Your task to perform on an android device: Open Google Maps Image 0: 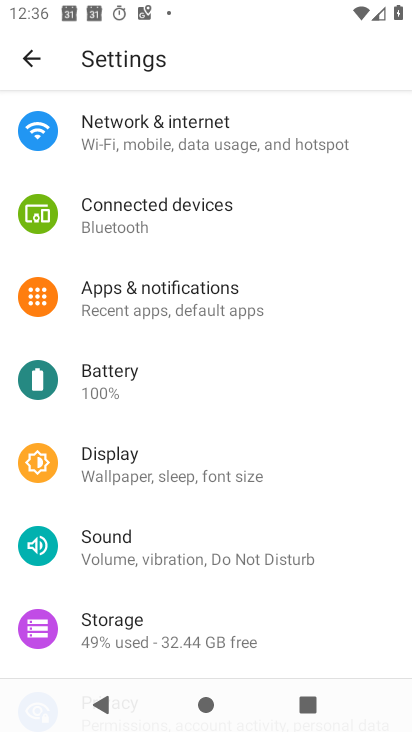
Step 0: press home button
Your task to perform on an android device: Open Google Maps Image 1: 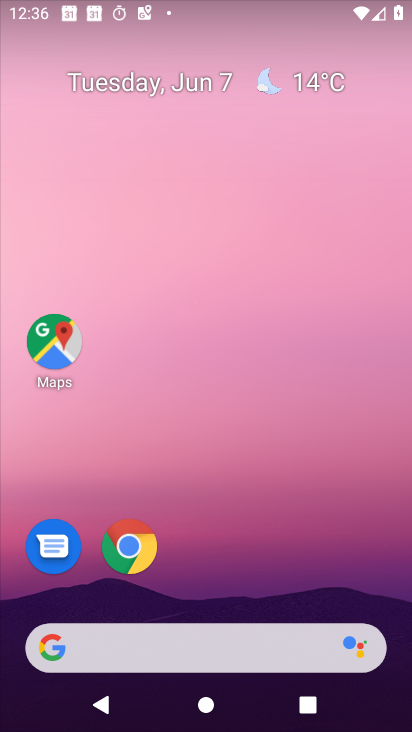
Step 1: click (51, 333)
Your task to perform on an android device: Open Google Maps Image 2: 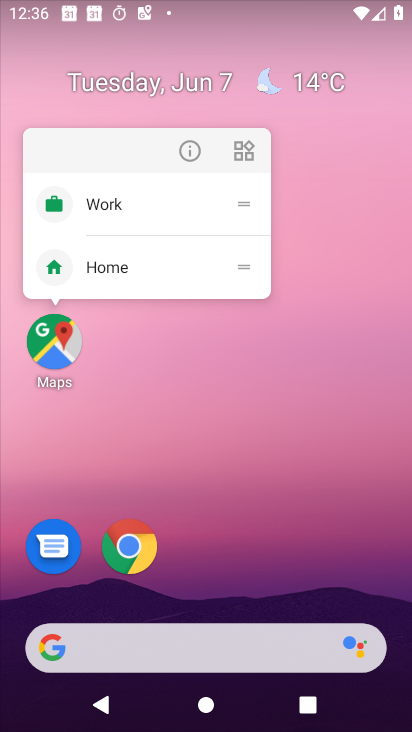
Step 2: click (51, 332)
Your task to perform on an android device: Open Google Maps Image 3: 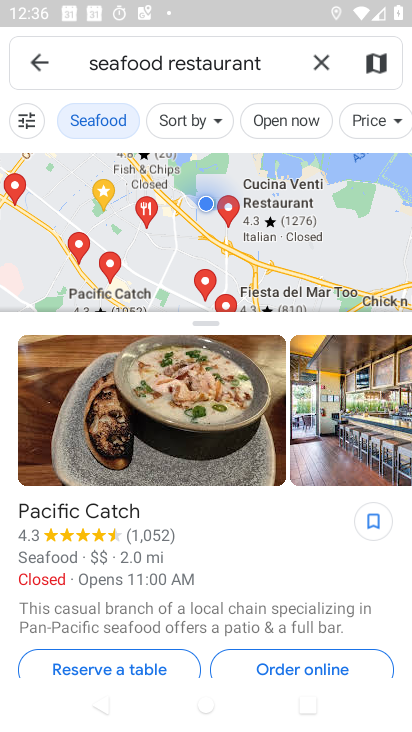
Step 3: click (30, 64)
Your task to perform on an android device: Open Google Maps Image 4: 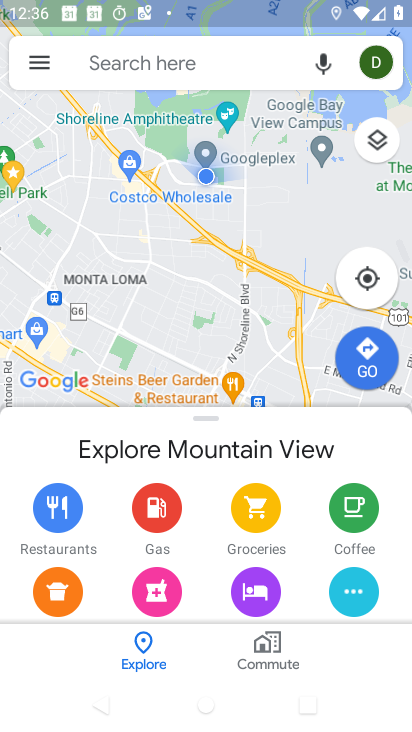
Step 4: task complete